Your task to perform on an android device: Open calendar and show me the first week of next month Image 0: 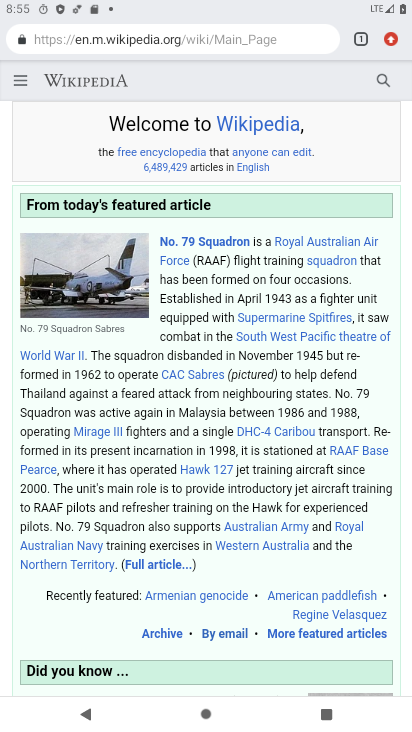
Step 0: press home button
Your task to perform on an android device: Open calendar and show me the first week of next month Image 1: 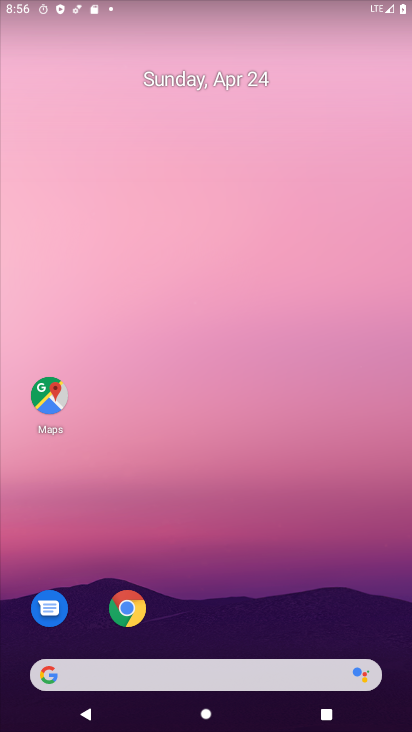
Step 1: drag from (278, 572) to (284, 110)
Your task to perform on an android device: Open calendar and show me the first week of next month Image 2: 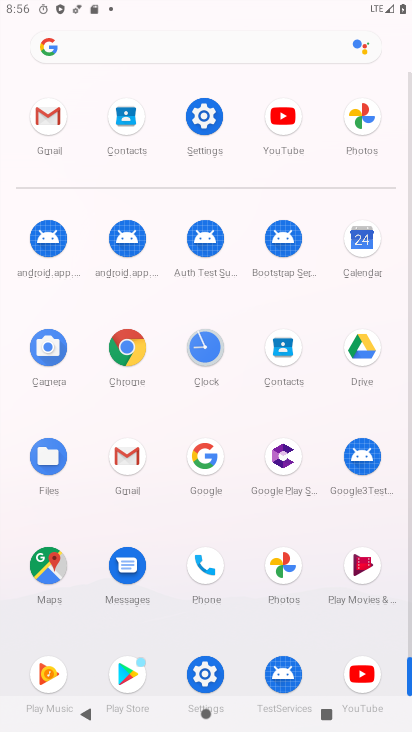
Step 2: click (362, 230)
Your task to perform on an android device: Open calendar and show me the first week of next month Image 3: 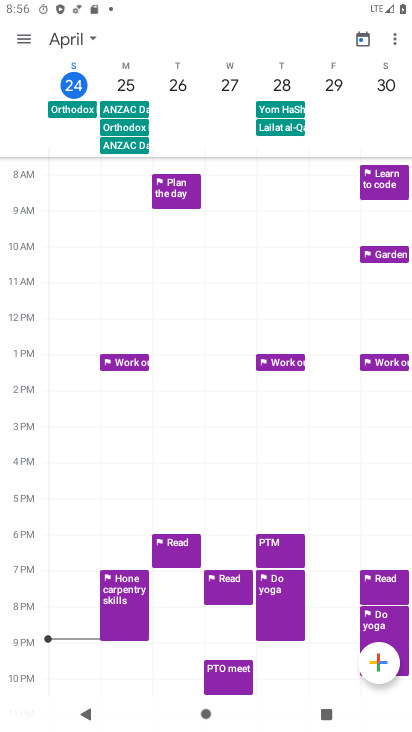
Step 3: task complete